Your task to perform on an android device: Go to location settings Image 0: 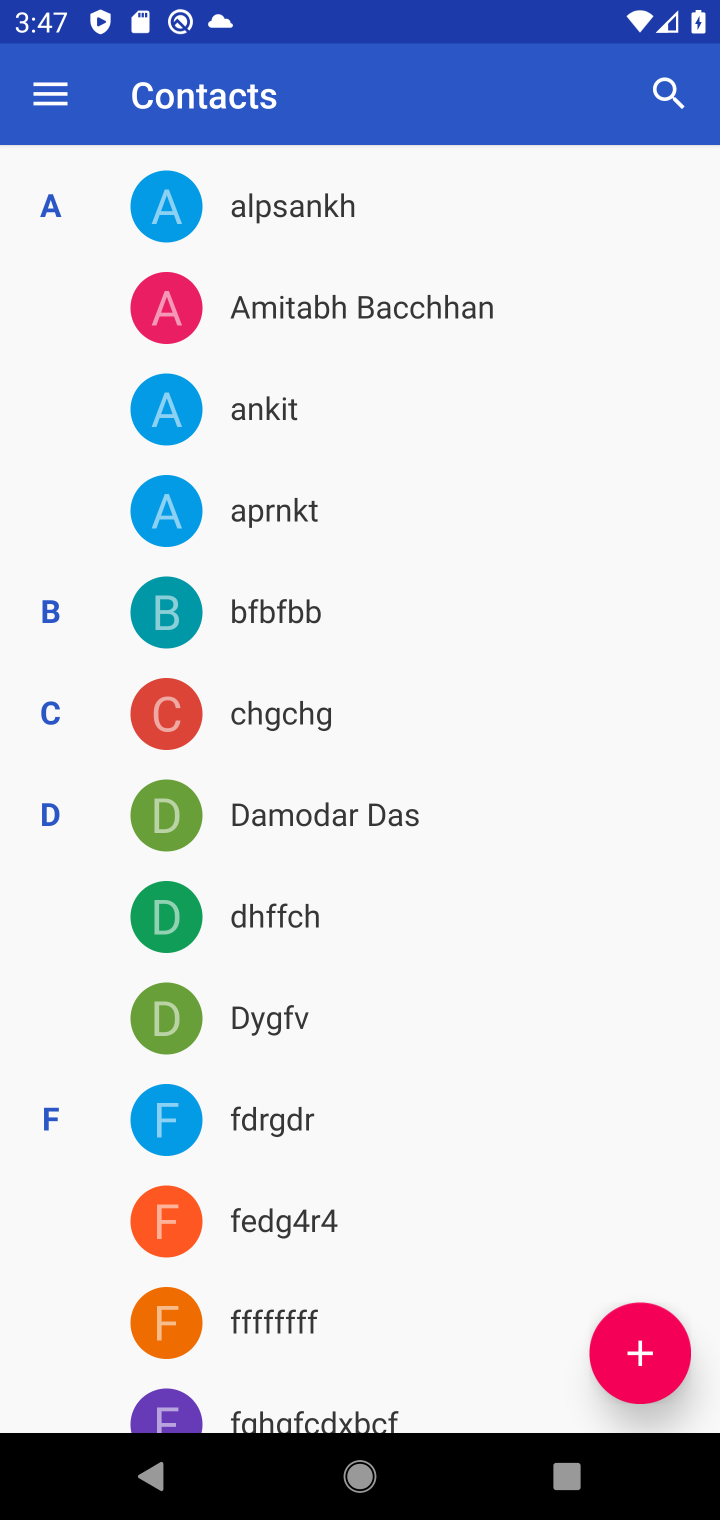
Step 0: press home button
Your task to perform on an android device: Go to location settings Image 1: 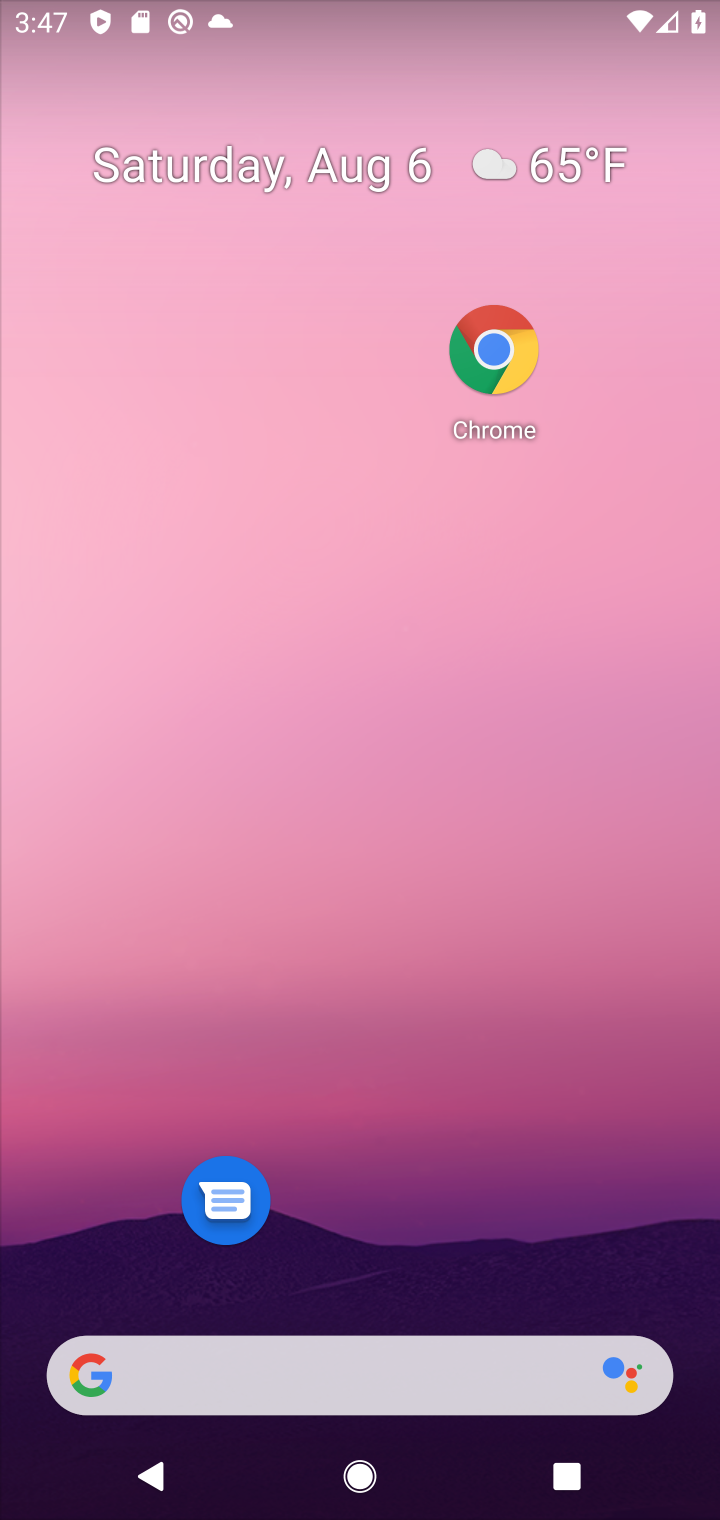
Step 1: drag from (264, 1347) to (424, 180)
Your task to perform on an android device: Go to location settings Image 2: 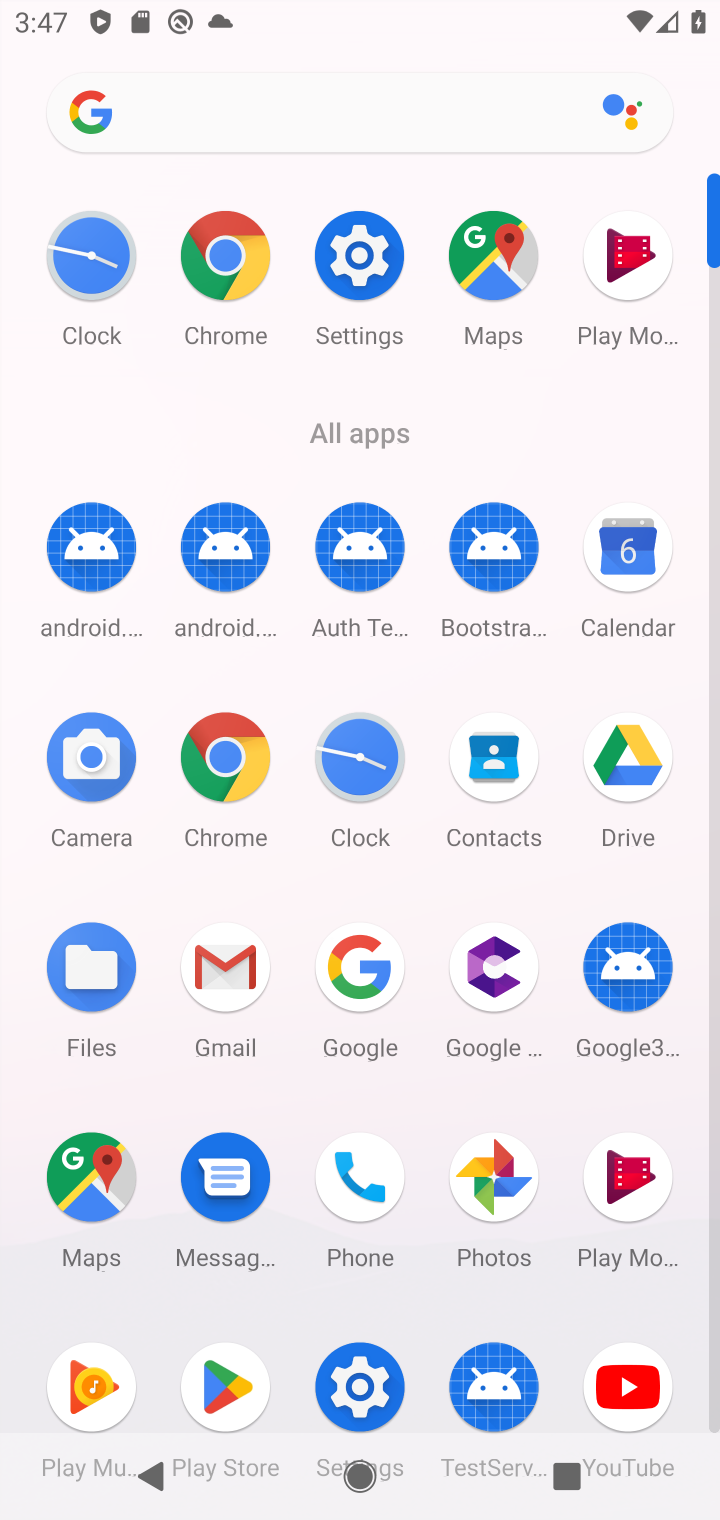
Step 2: click (350, 243)
Your task to perform on an android device: Go to location settings Image 3: 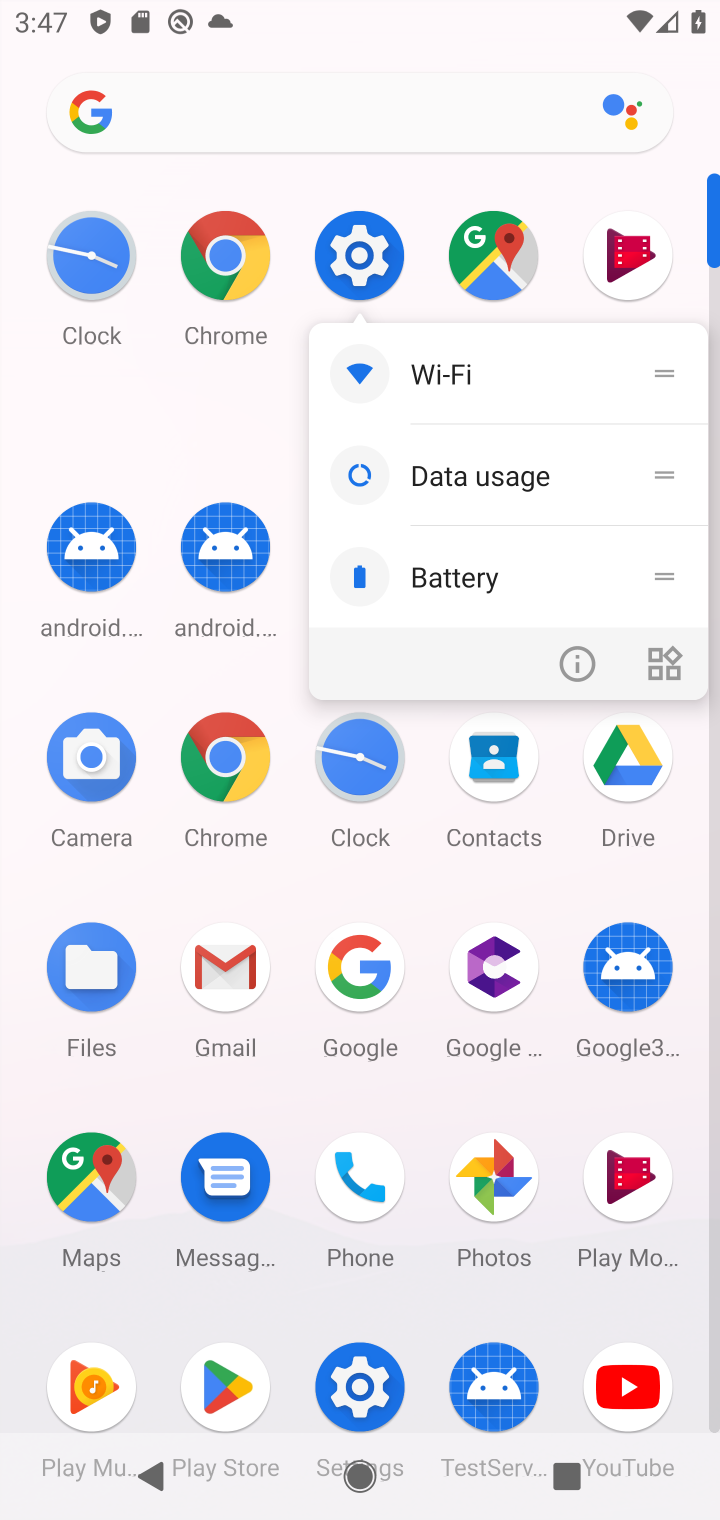
Step 3: click (385, 280)
Your task to perform on an android device: Go to location settings Image 4: 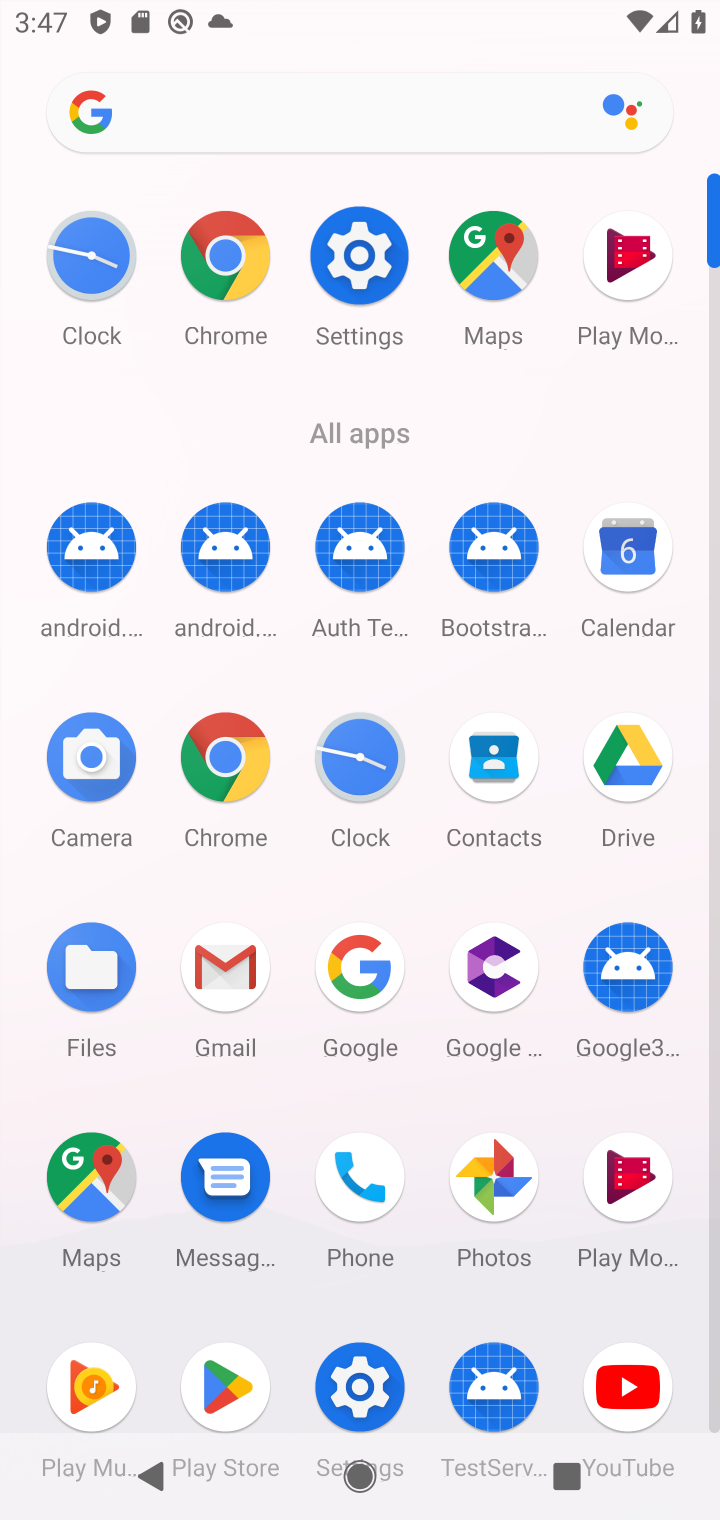
Step 4: click (382, 278)
Your task to perform on an android device: Go to location settings Image 5: 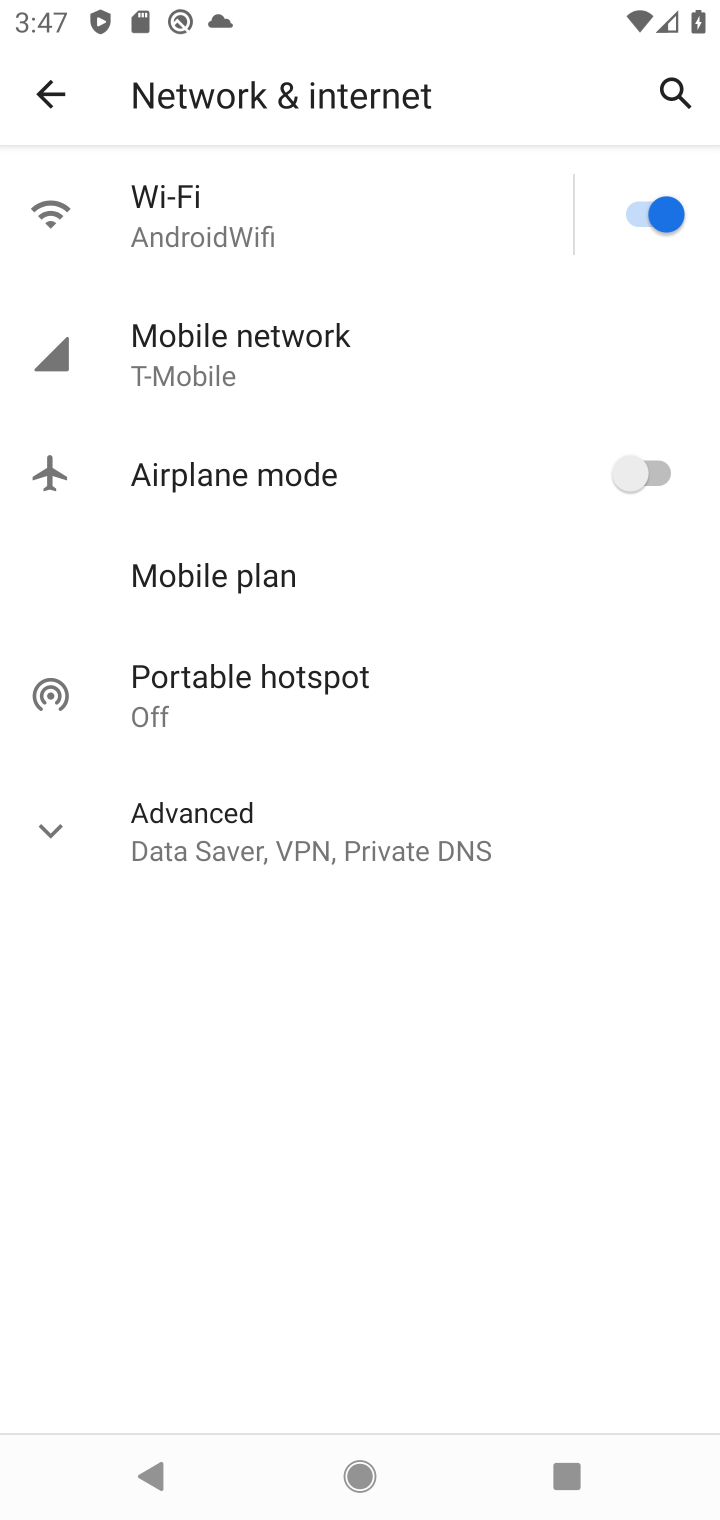
Step 5: click (59, 91)
Your task to perform on an android device: Go to location settings Image 6: 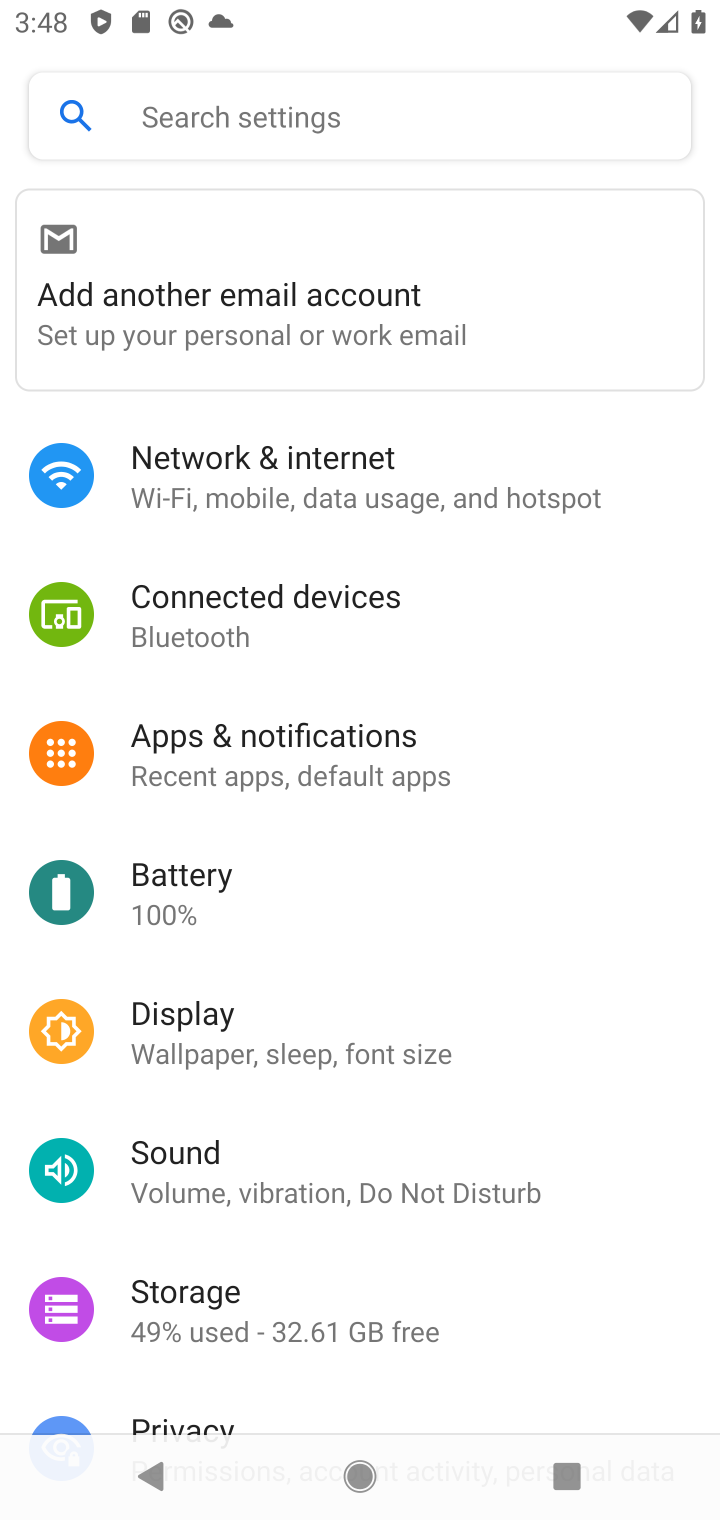
Step 6: drag from (265, 1384) to (428, 629)
Your task to perform on an android device: Go to location settings Image 7: 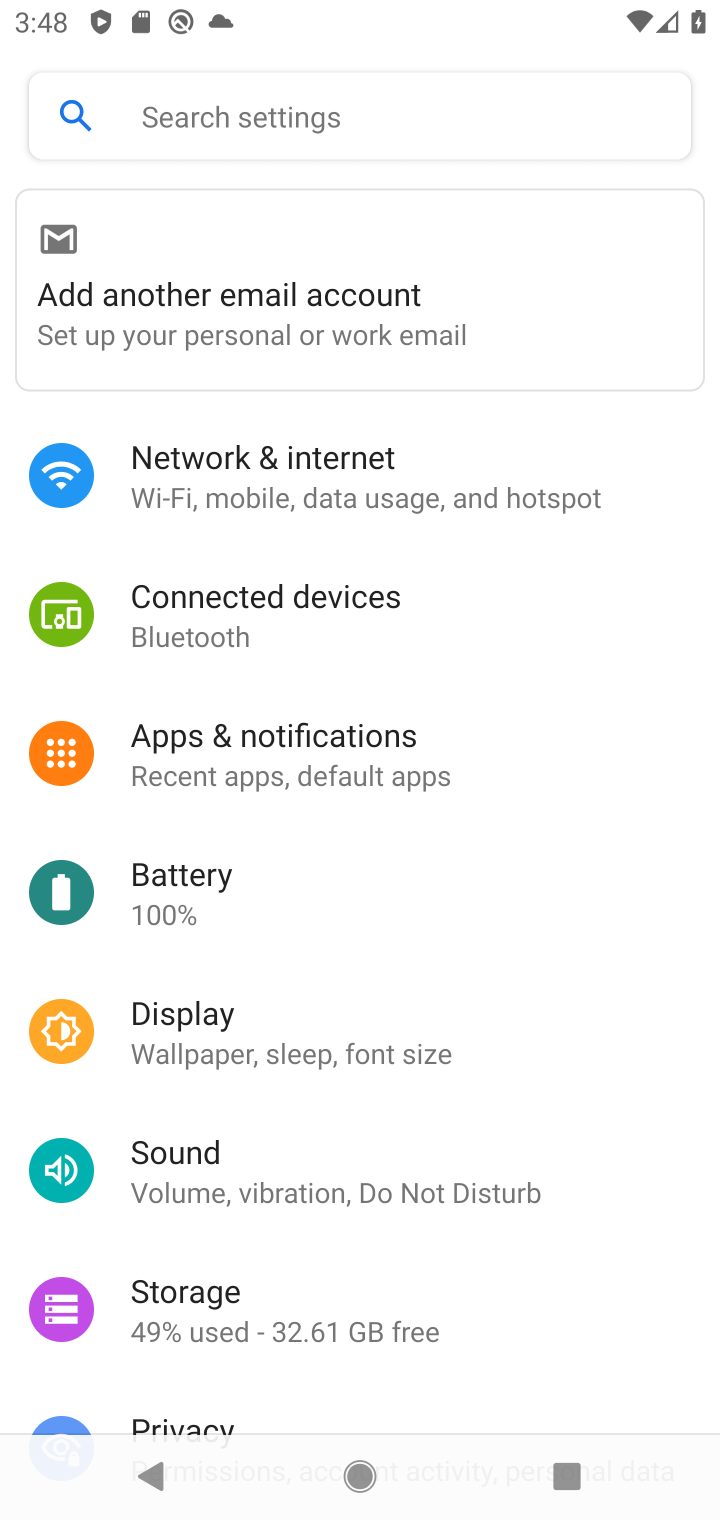
Step 7: drag from (285, 1369) to (430, 575)
Your task to perform on an android device: Go to location settings Image 8: 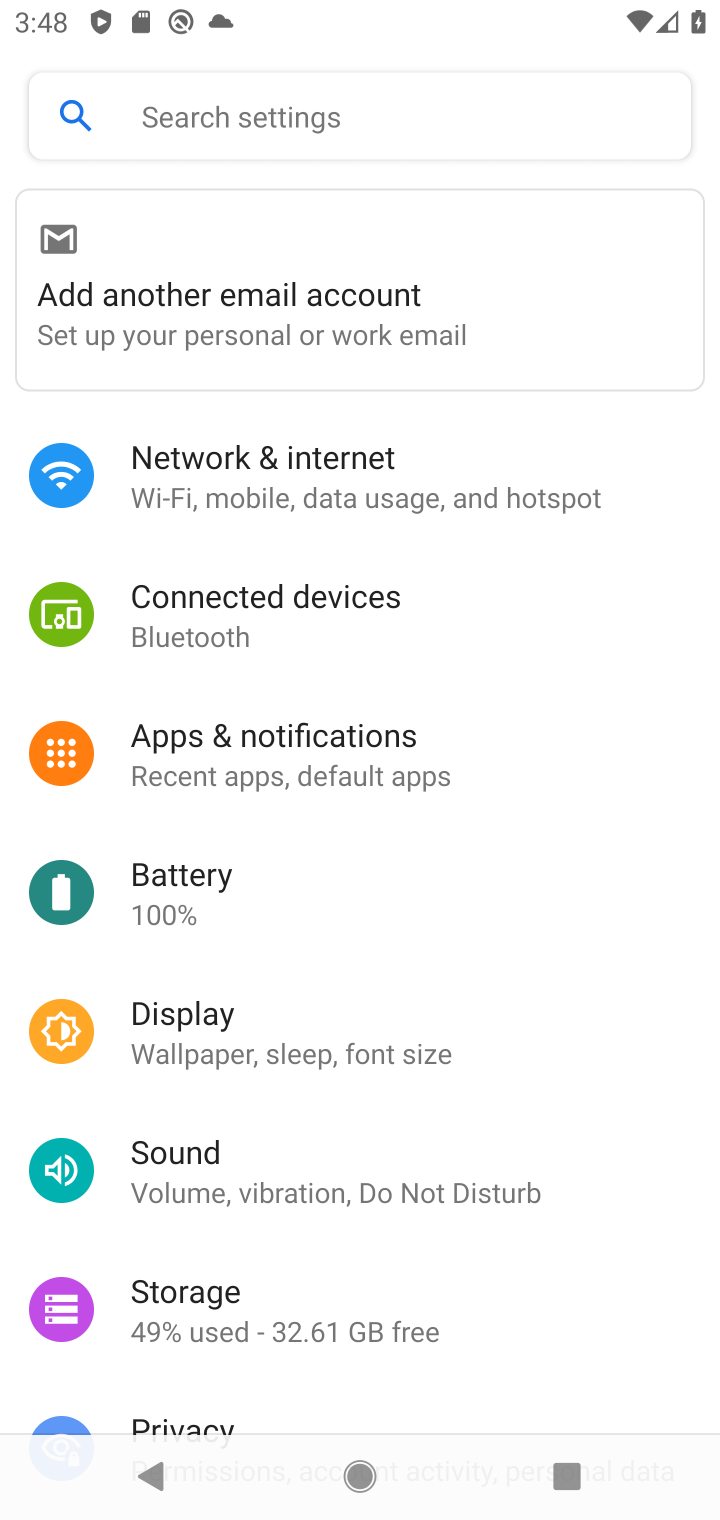
Step 8: drag from (341, 1222) to (473, 207)
Your task to perform on an android device: Go to location settings Image 9: 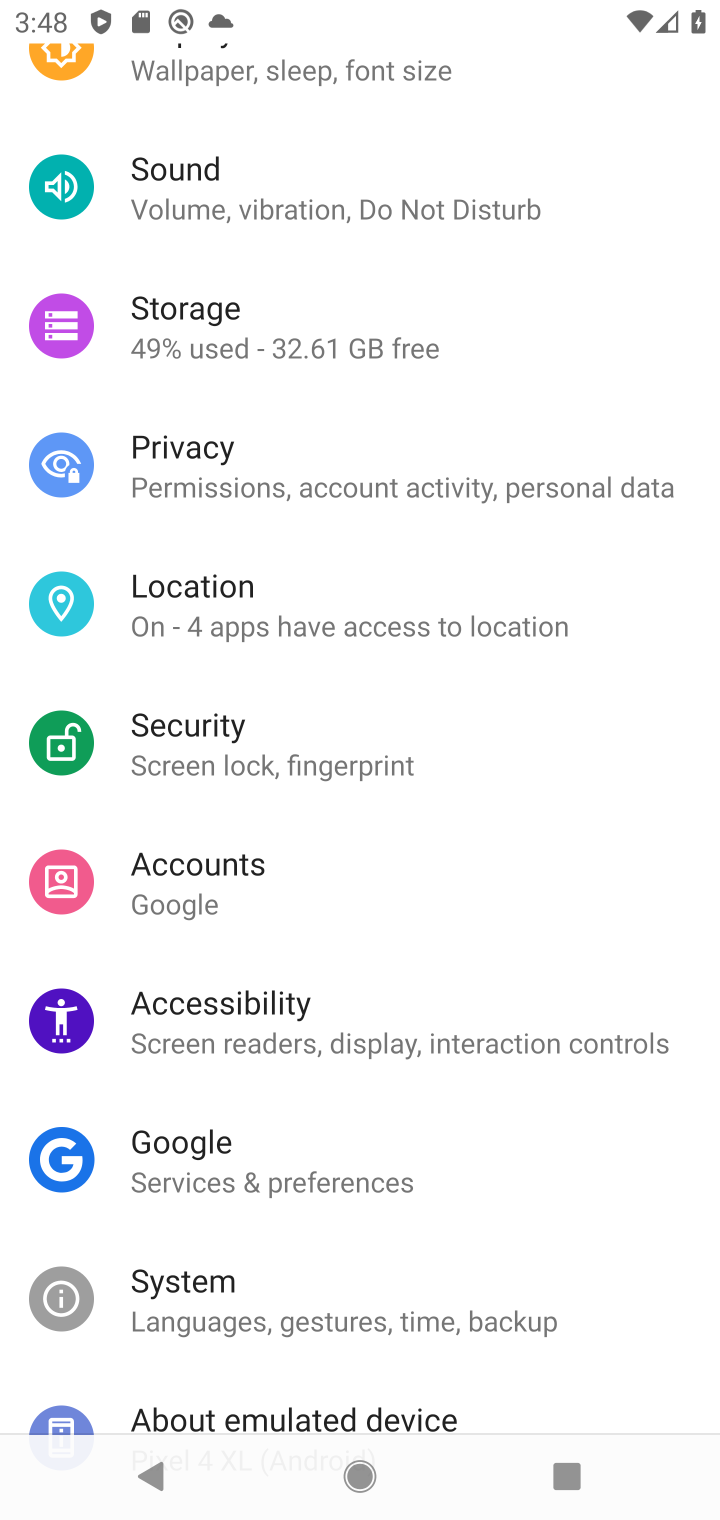
Step 9: click (230, 595)
Your task to perform on an android device: Go to location settings Image 10: 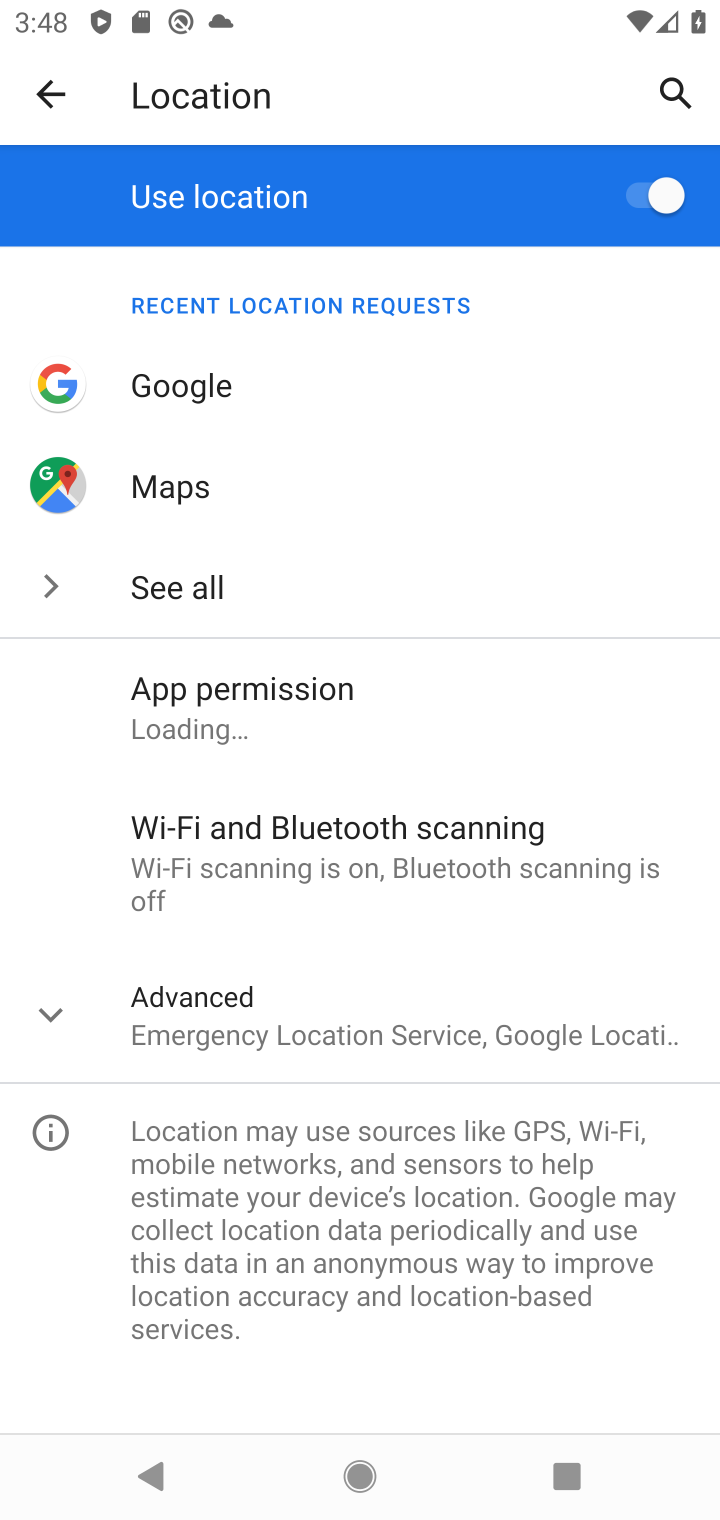
Step 10: click (164, 990)
Your task to perform on an android device: Go to location settings Image 11: 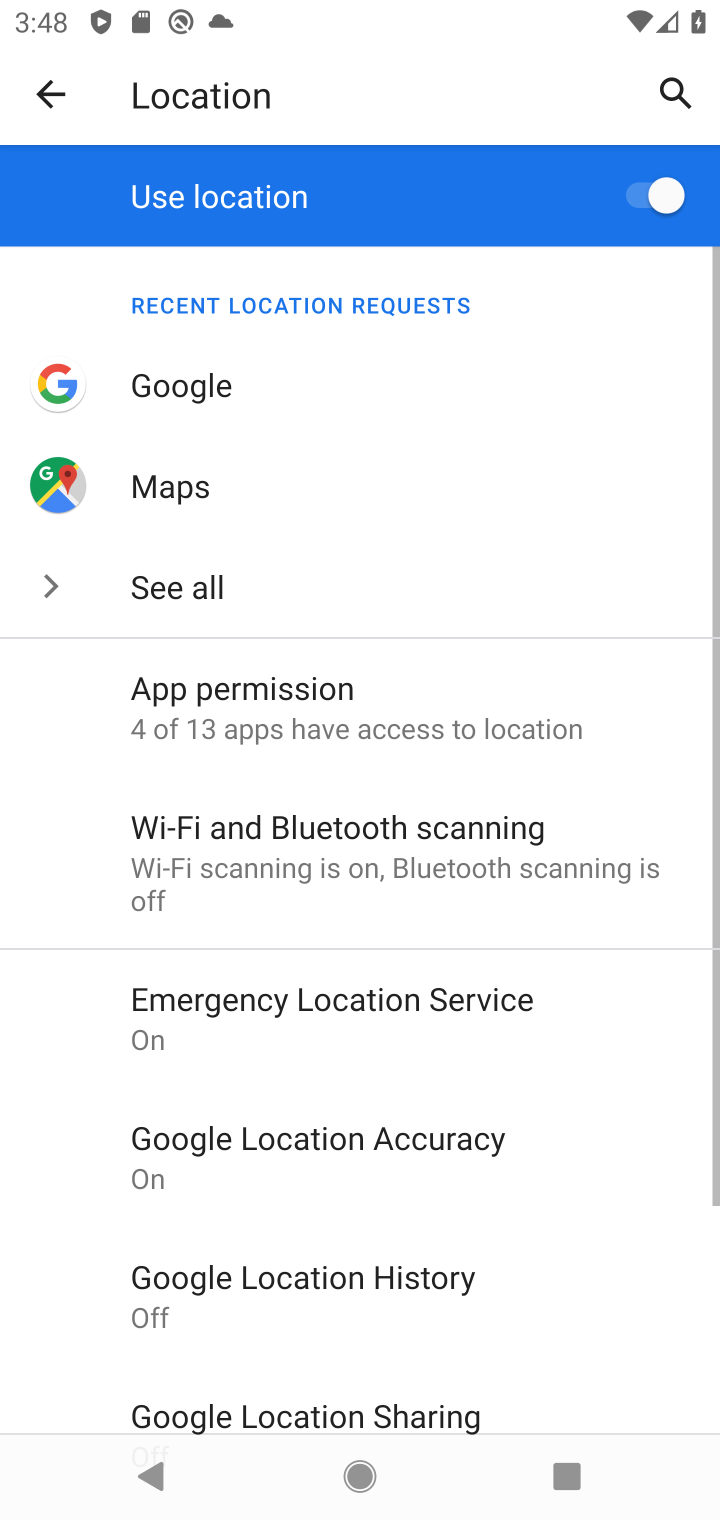
Step 11: task complete